Your task to perform on an android device: turn off wifi Image 0: 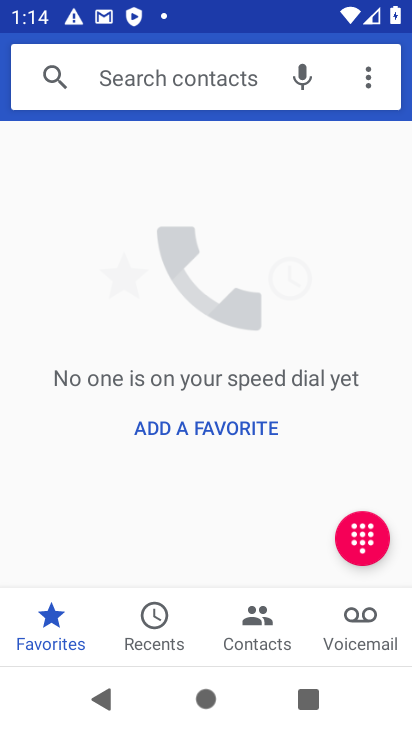
Step 0: press home button
Your task to perform on an android device: turn off wifi Image 1: 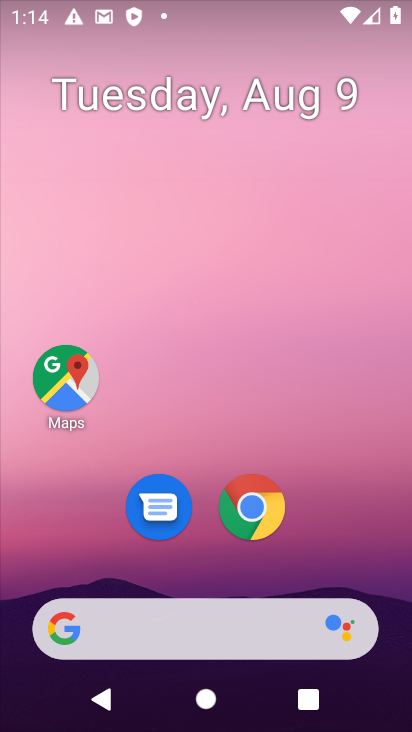
Step 1: drag from (246, 418) to (283, 194)
Your task to perform on an android device: turn off wifi Image 2: 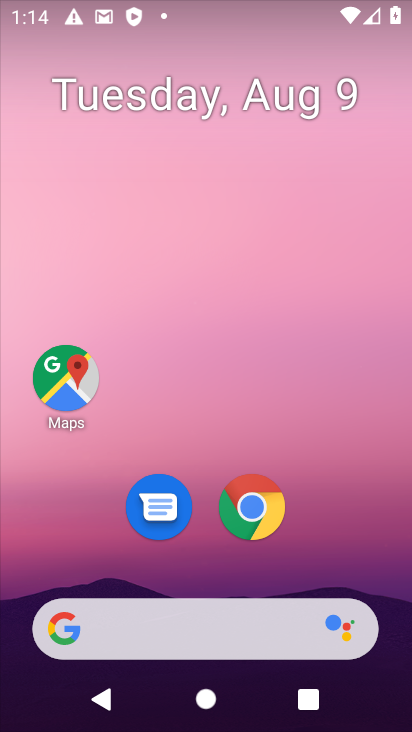
Step 2: drag from (201, 450) to (215, 101)
Your task to perform on an android device: turn off wifi Image 3: 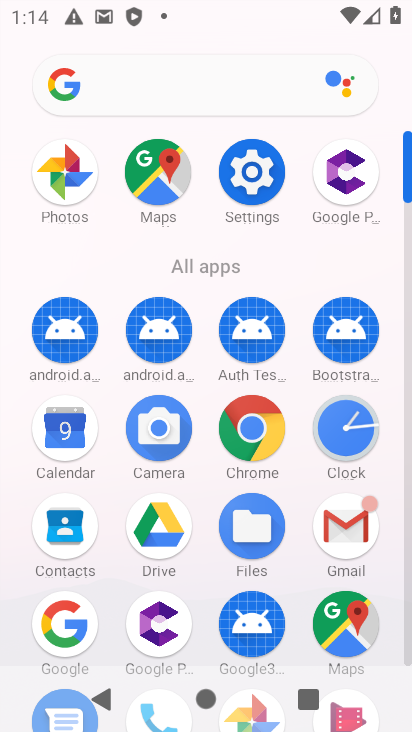
Step 3: click (259, 168)
Your task to perform on an android device: turn off wifi Image 4: 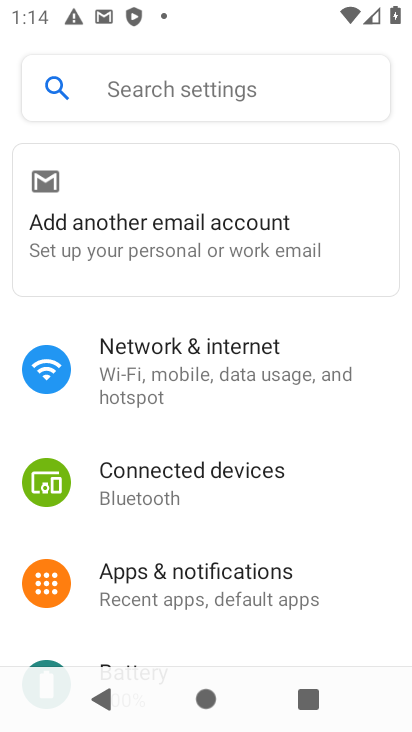
Step 4: click (147, 188)
Your task to perform on an android device: turn off wifi Image 5: 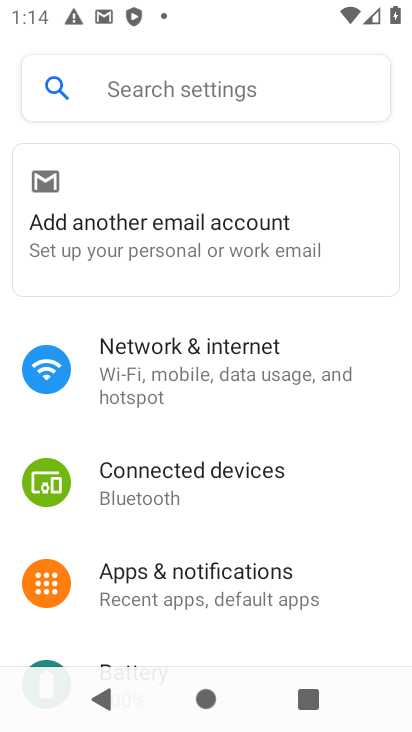
Step 5: click (154, 363)
Your task to perform on an android device: turn off wifi Image 6: 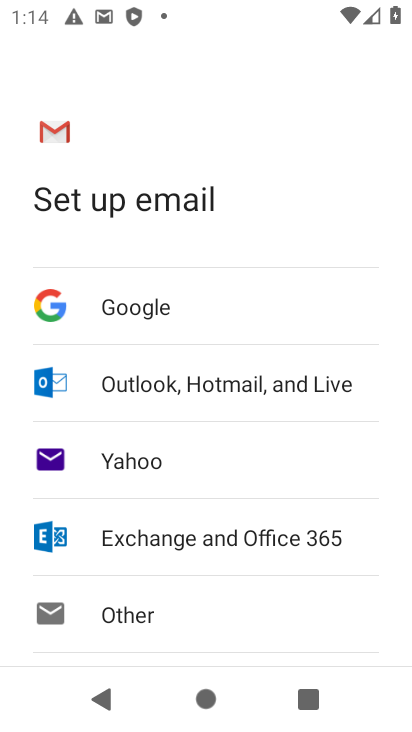
Step 6: click (116, 723)
Your task to perform on an android device: turn off wifi Image 7: 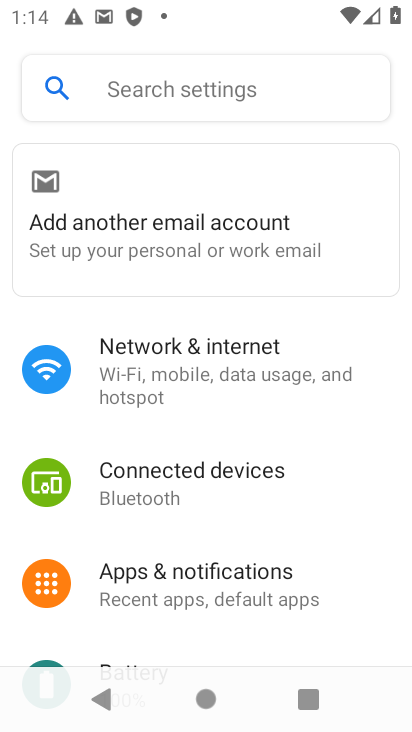
Step 7: click (214, 372)
Your task to perform on an android device: turn off wifi Image 8: 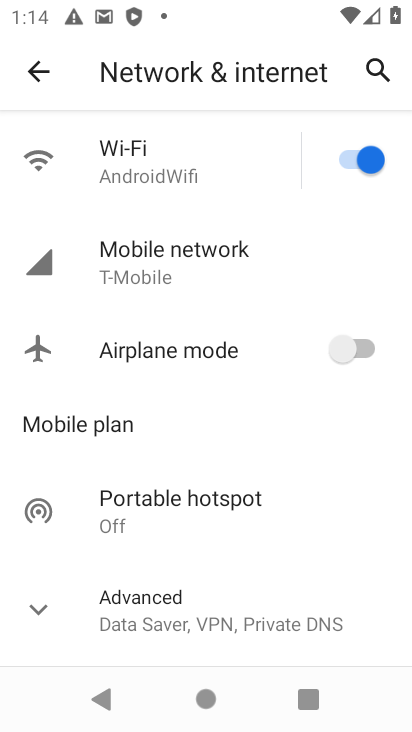
Step 8: click (363, 158)
Your task to perform on an android device: turn off wifi Image 9: 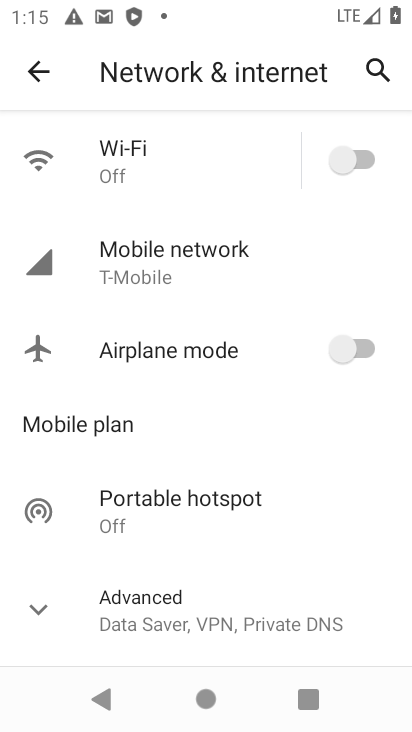
Step 9: task complete